Your task to perform on an android device: Go to accessibility settings Image 0: 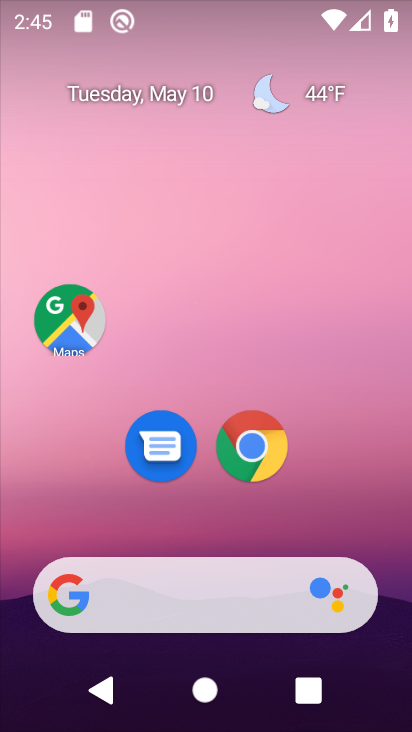
Step 0: drag from (360, 502) to (384, 6)
Your task to perform on an android device: Go to accessibility settings Image 1: 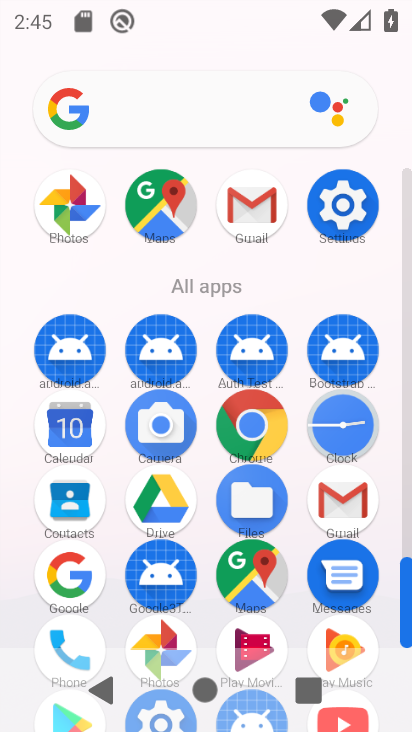
Step 1: click (330, 193)
Your task to perform on an android device: Go to accessibility settings Image 2: 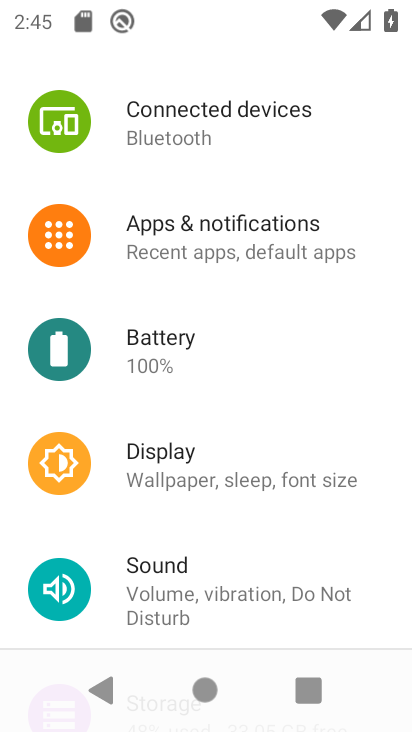
Step 2: drag from (251, 573) to (274, 144)
Your task to perform on an android device: Go to accessibility settings Image 3: 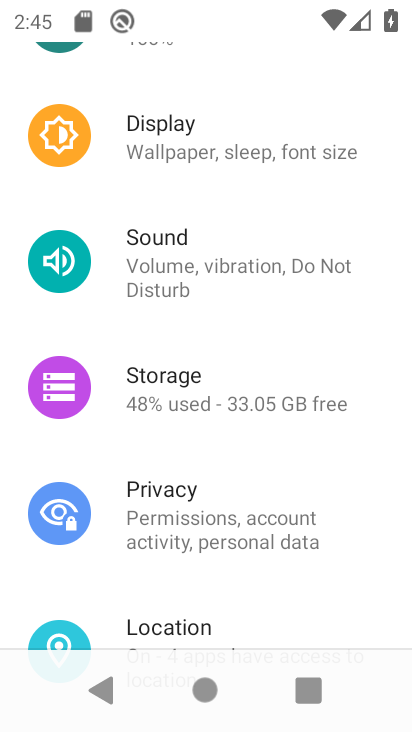
Step 3: drag from (198, 511) to (266, 130)
Your task to perform on an android device: Go to accessibility settings Image 4: 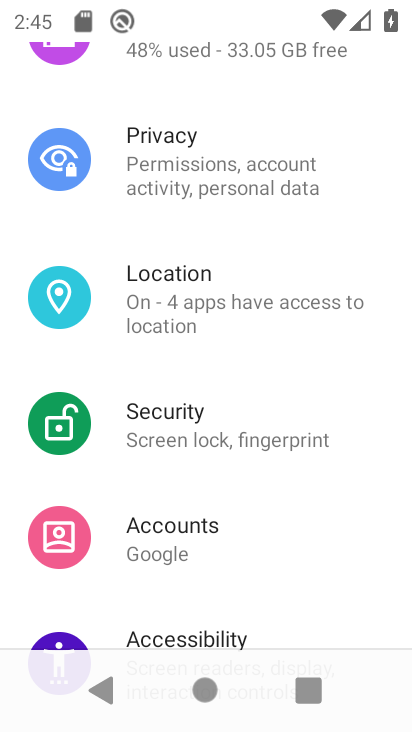
Step 4: drag from (220, 537) to (268, 102)
Your task to perform on an android device: Go to accessibility settings Image 5: 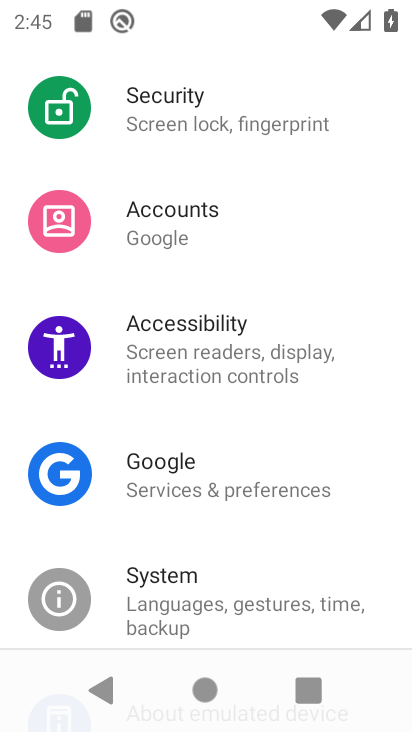
Step 5: click (187, 365)
Your task to perform on an android device: Go to accessibility settings Image 6: 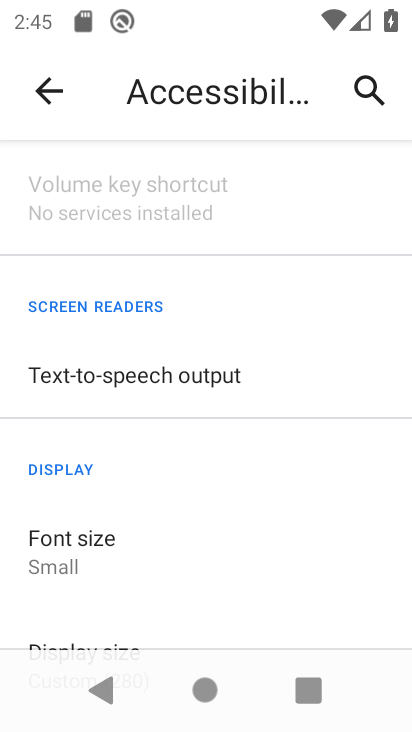
Step 6: task complete